Your task to perform on an android device: Show me popular games on the Play Store Image 0: 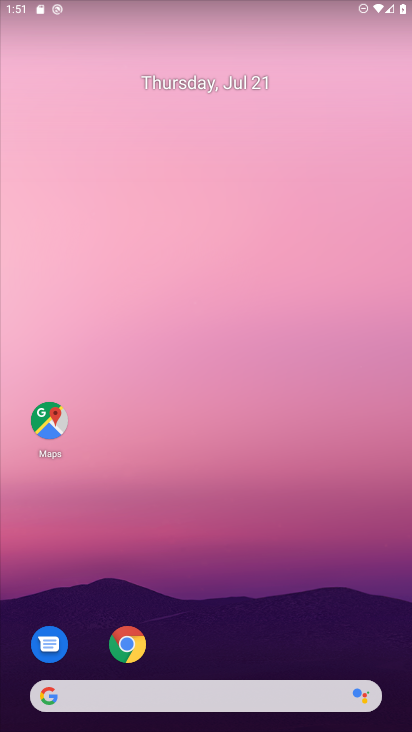
Step 0: drag from (255, 631) to (248, 38)
Your task to perform on an android device: Show me popular games on the Play Store Image 1: 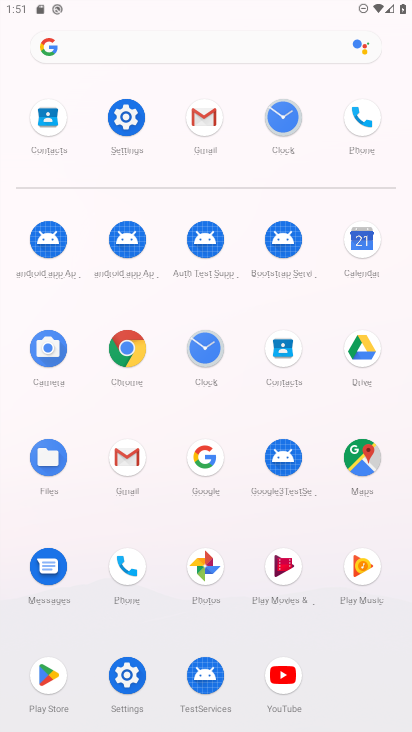
Step 1: click (55, 670)
Your task to perform on an android device: Show me popular games on the Play Store Image 2: 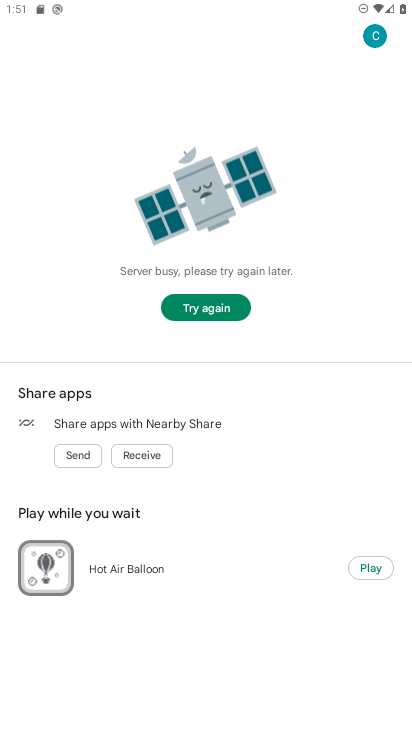
Step 2: click (216, 298)
Your task to perform on an android device: Show me popular games on the Play Store Image 3: 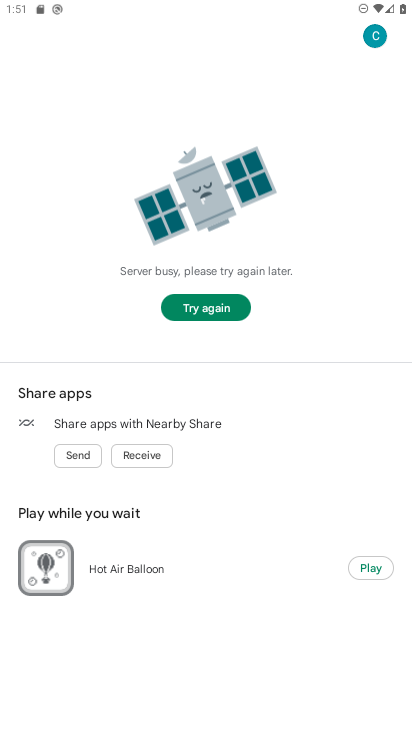
Step 3: click (214, 316)
Your task to perform on an android device: Show me popular games on the Play Store Image 4: 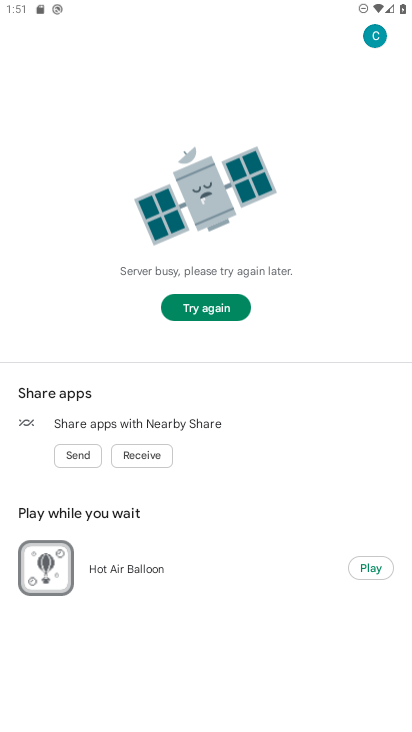
Step 4: click (214, 316)
Your task to perform on an android device: Show me popular games on the Play Store Image 5: 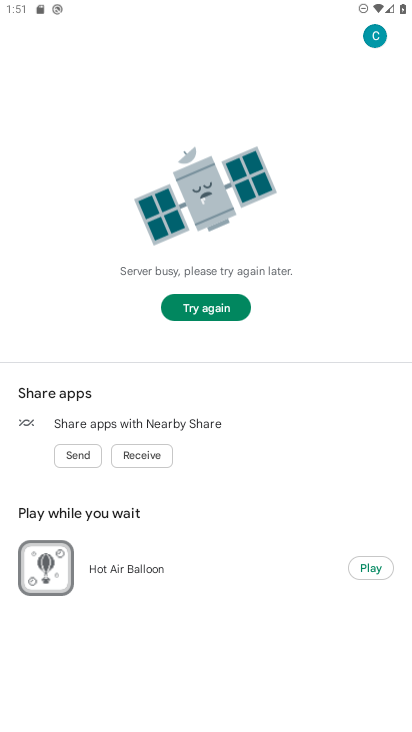
Step 5: task complete